Your task to perform on an android device: Open display settings Image 0: 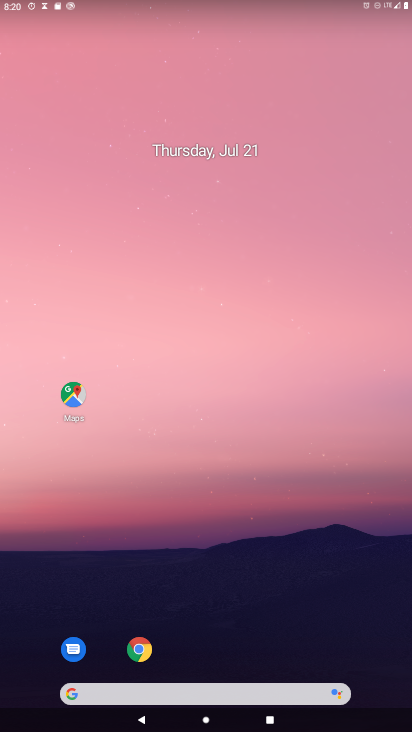
Step 0: click (81, 18)
Your task to perform on an android device: Open display settings Image 1: 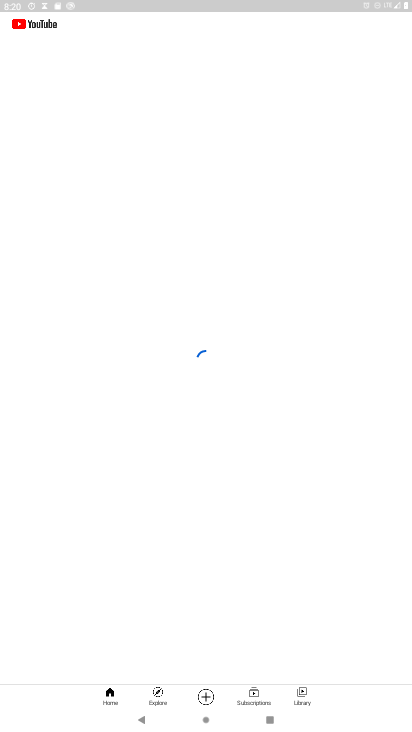
Step 1: press home button
Your task to perform on an android device: Open display settings Image 2: 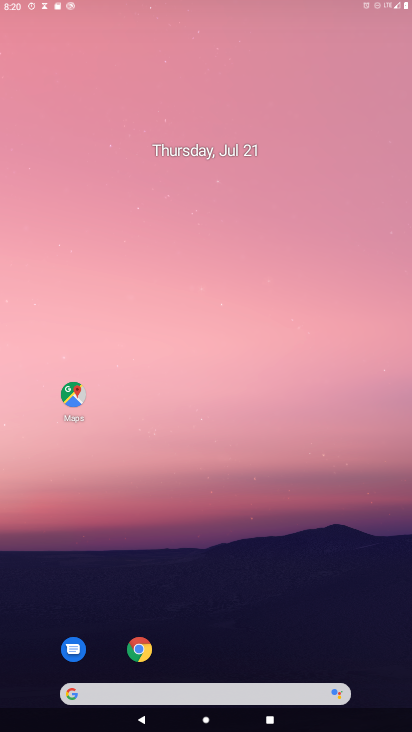
Step 2: drag from (364, 608) to (144, 63)
Your task to perform on an android device: Open display settings Image 3: 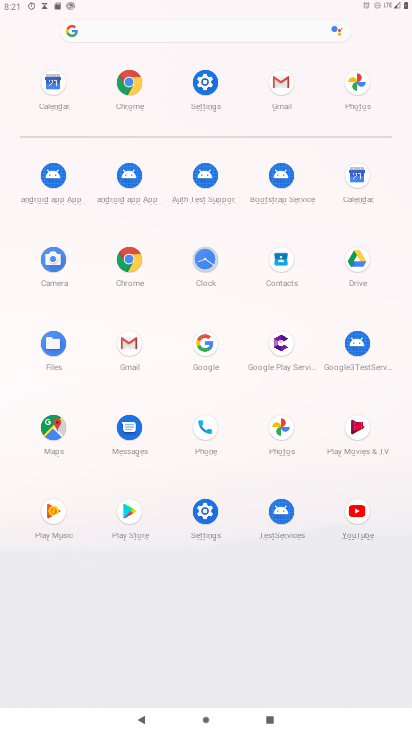
Step 3: click (202, 516)
Your task to perform on an android device: Open display settings Image 4: 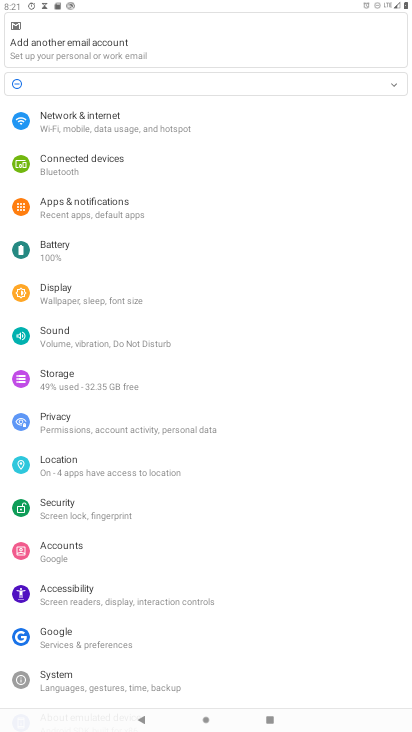
Step 4: click (61, 298)
Your task to perform on an android device: Open display settings Image 5: 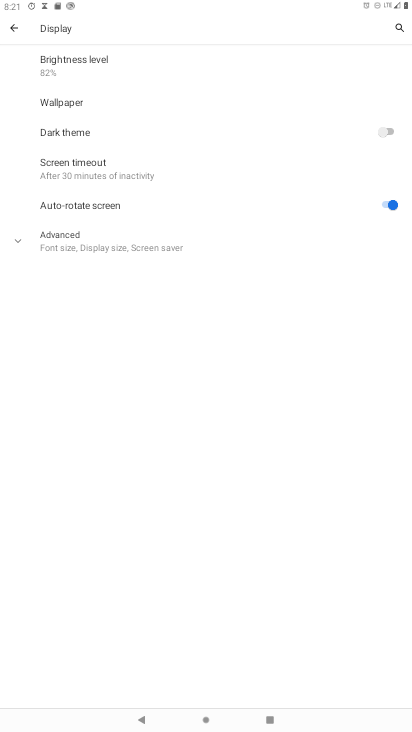
Step 5: task complete